Your task to perform on an android device: Go to Google Image 0: 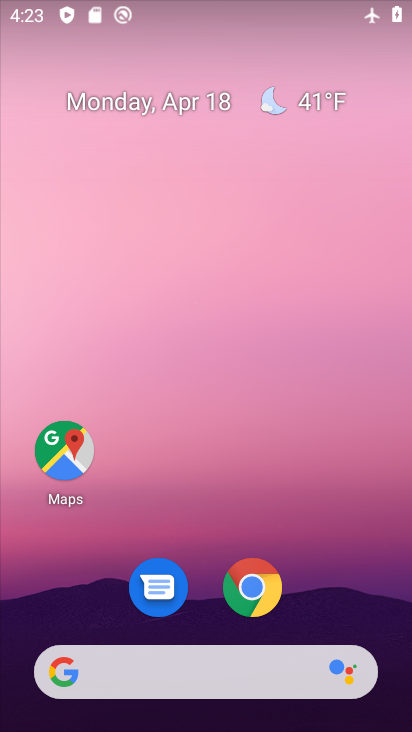
Step 0: drag from (261, 575) to (284, 196)
Your task to perform on an android device: Go to Google Image 1: 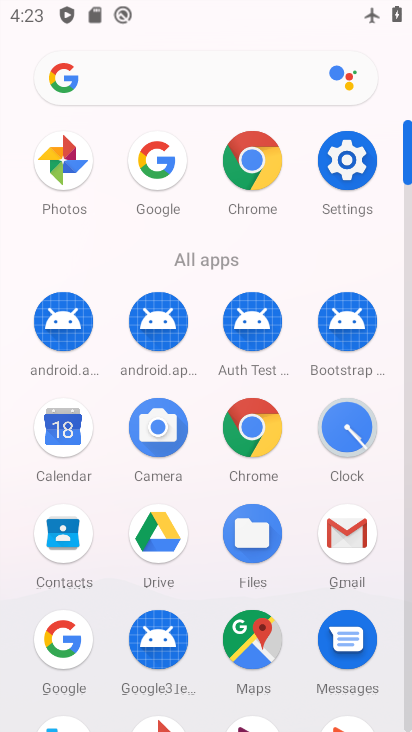
Step 1: click (74, 637)
Your task to perform on an android device: Go to Google Image 2: 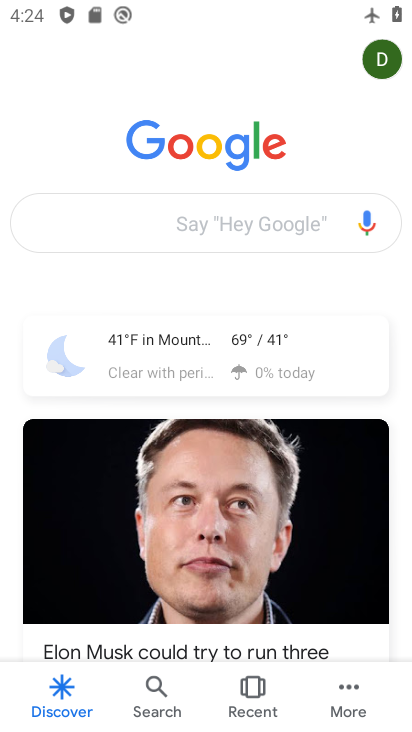
Step 2: task complete